Your task to perform on an android device: allow notifications from all sites in the chrome app Image 0: 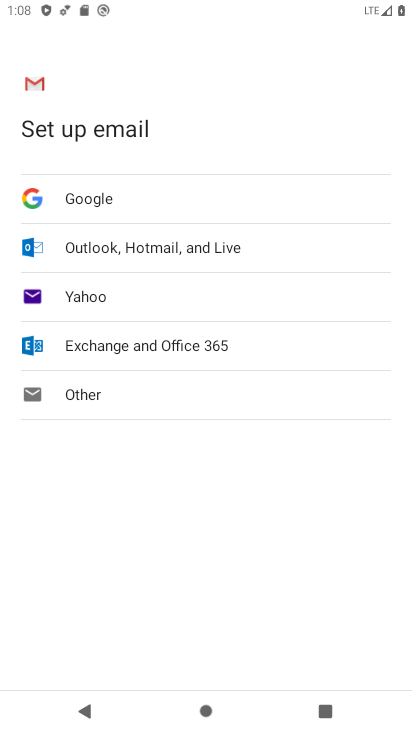
Step 0: press home button
Your task to perform on an android device: allow notifications from all sites in the chrome app Image 1: 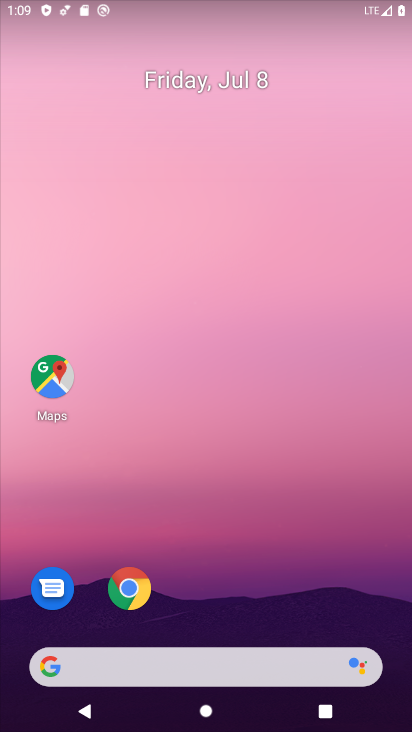
Step 1: drag from (212, 634) to (239, 0)
Your task to perform on an android device: allow notifications from all sites in the chrome app Image 2: 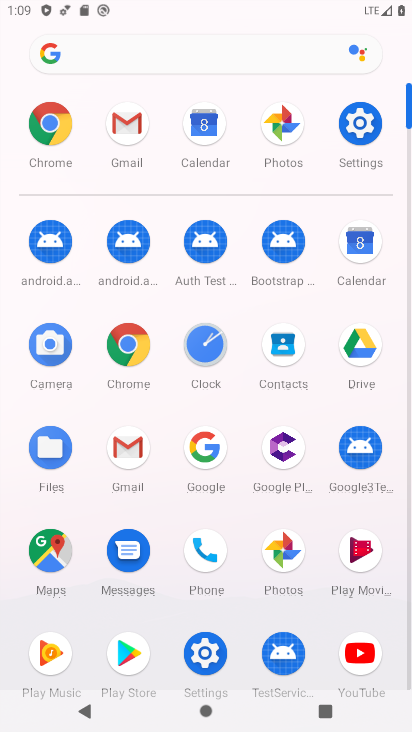
Step 2: click (129, 350)
Your task to perform on an android device: allow notifications from all sites in the chrome app Image 3: 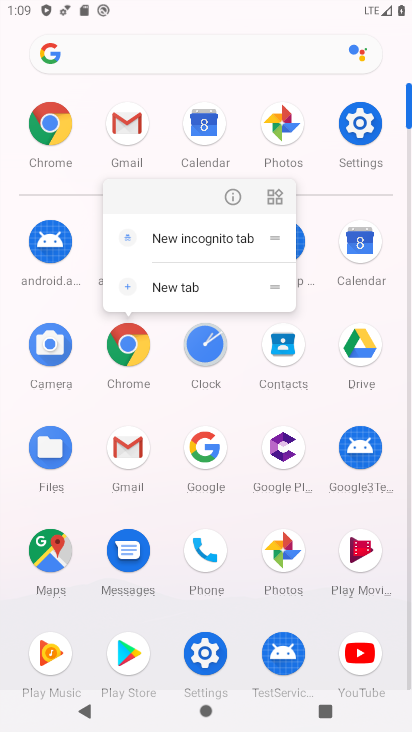
Step 3: click (121, 355)
Your task to perform on an android device: allow notifications from all sites in the chrome app Image 4: 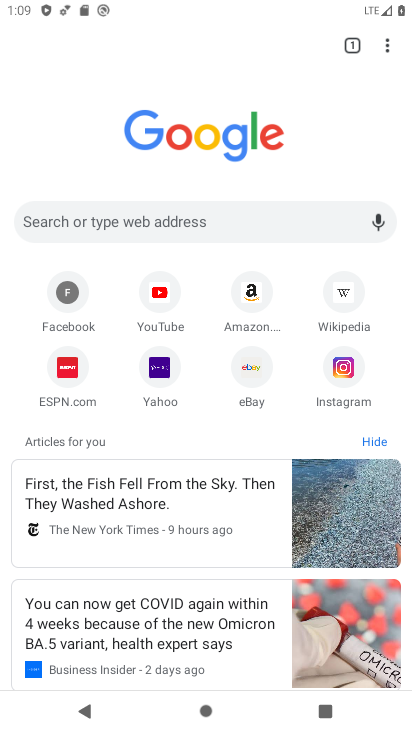
Step 4: click (388, 45)
Your task to perform on an android device: allow notifications from all sites in the chrome app Image 5: 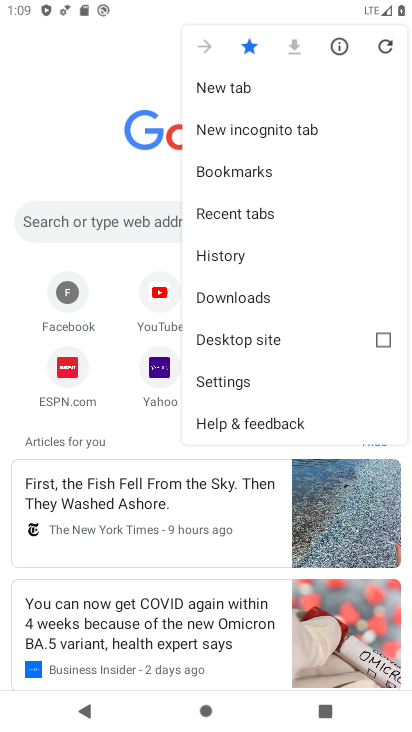
Step 5: click (241, 377)
Your task to perform on an android device: allow notifications from all sites in the chrome app Image 6: 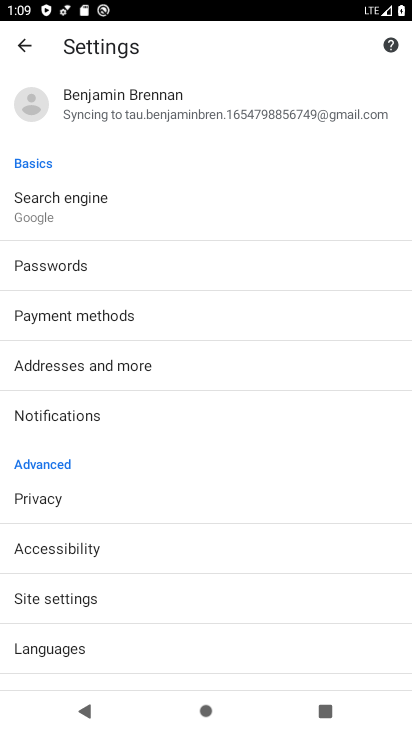
Step 6: click (83, 420)
Your task to perform on an android device: allow notifications from all sites in the chrome app Image 7: 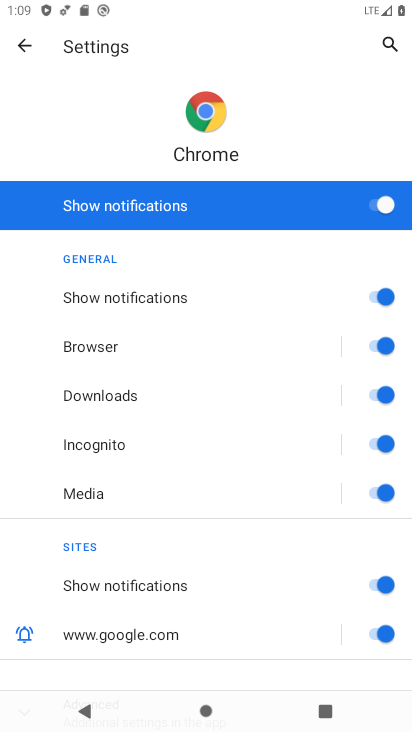
Step 7: task complete